Your task to perform on an android device: open a bookmark in the chrome app Image 0: 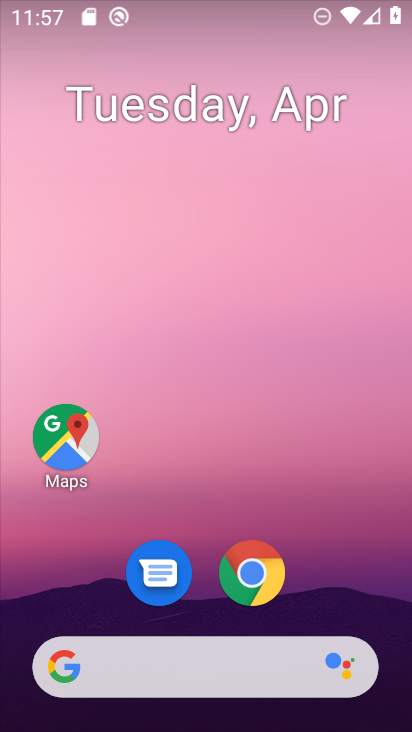
Step 0: drag from (325, 307) to (286, 107)
Your task to perform on an android device: open a bookmark in the chrome app Image 1: 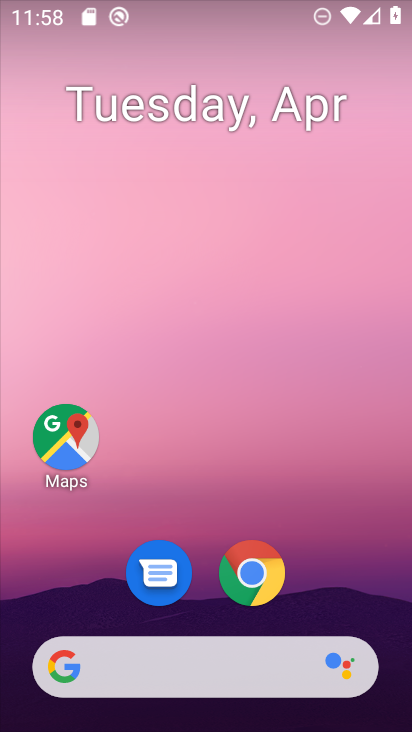
Step 1: click (271, 568)
Your task to perform on an android device: open a bookmark in the chrome app Image 2: 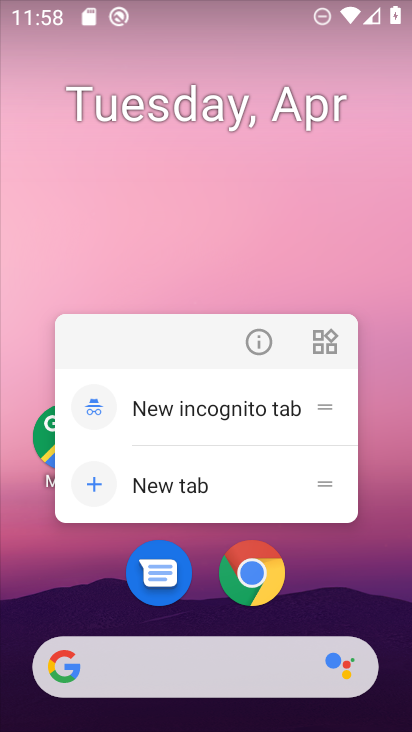
Step 2: click (251, 569)
Your task to perform on an android device: open a bookmark in the chrome app Image 3: 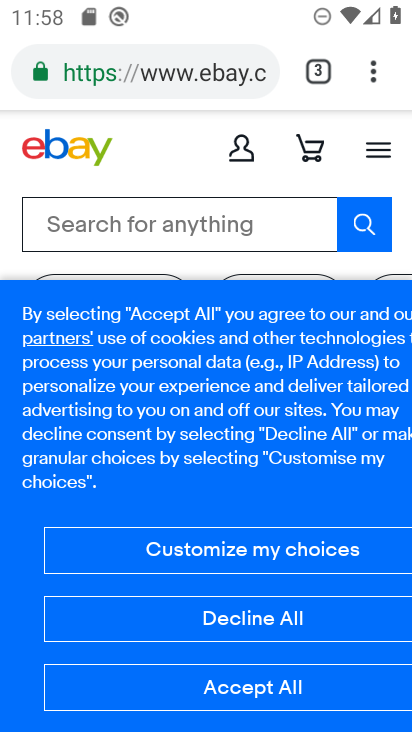
Step 3: click (381, 59)
Your task to perform on an android device: open a bookmark in the chrome app Image 4: 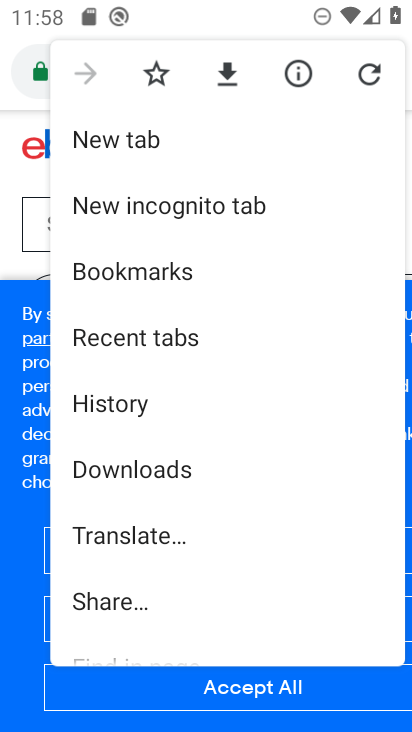
Step 4: click (215, 286)
Your task to perform on an android device: open a bookmark in the chrome app Image 5: 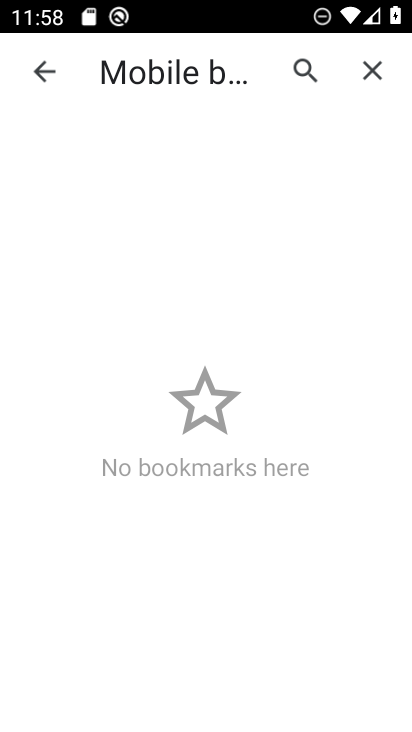
Step 5: task complete